Your task to perform on an android device: toggle sleep mode Image 0: 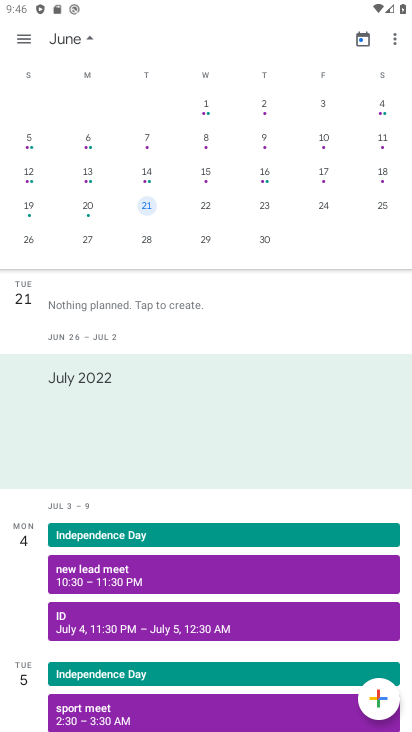
Step 0: press home button
Your task to perform on an android device: toggle sleep mode Image 1: 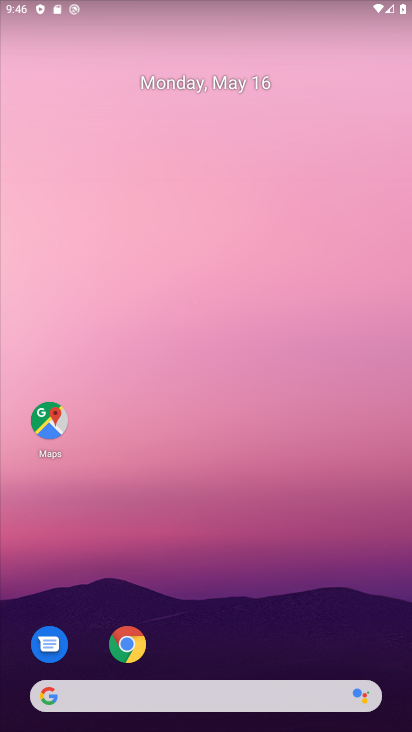
Step 1: drag from (96, 476) to (273, 79)
Your task to perform on an android device: toggle sleep mode Image 2: 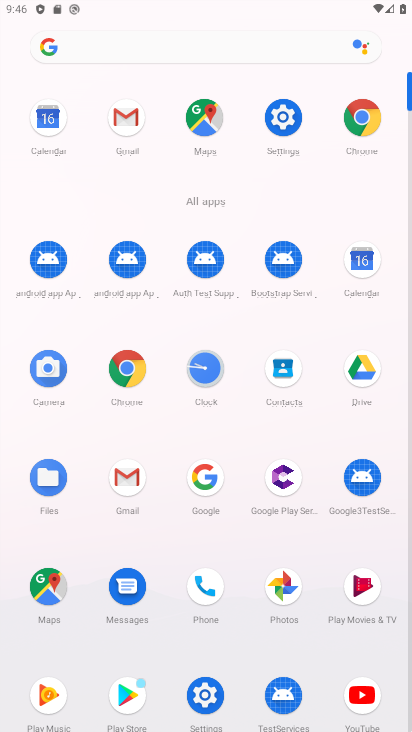
Step 2: click (292, 128)
Your task to perform on an android device: toggle sleep mode Image 3: 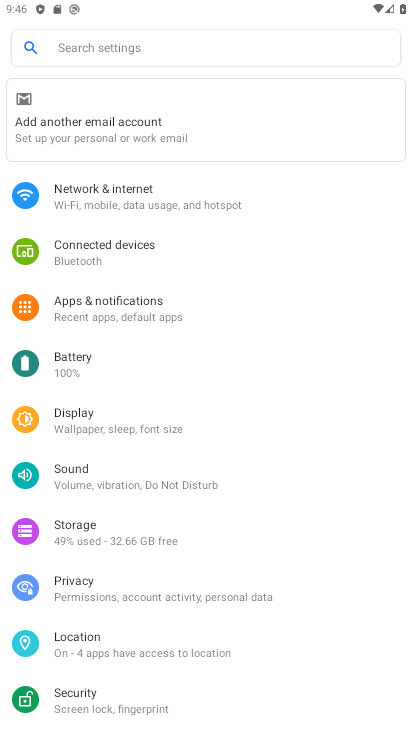
Step 3: click (143, 433)
Your task to perform on an android device: toggle sleep mode Image 4: 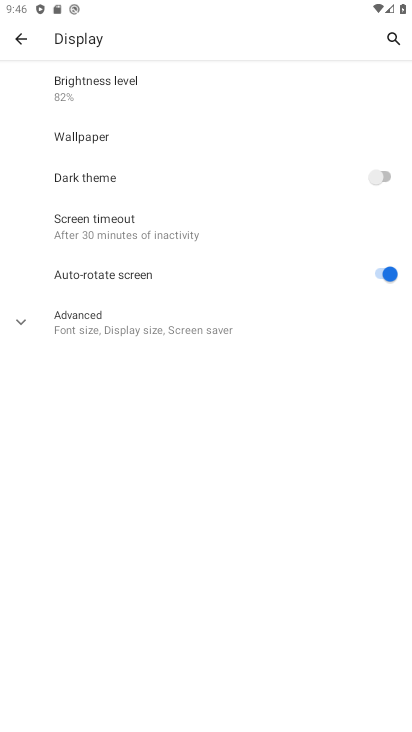
Step 4: task complete